Your task to perform on an android device: check google app version Image 0: 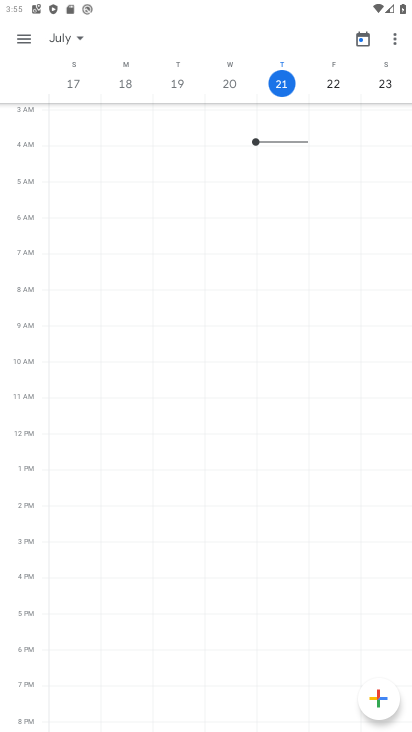
Step 0: press home button
Your task to perform on an android device: check google app version Image 1: 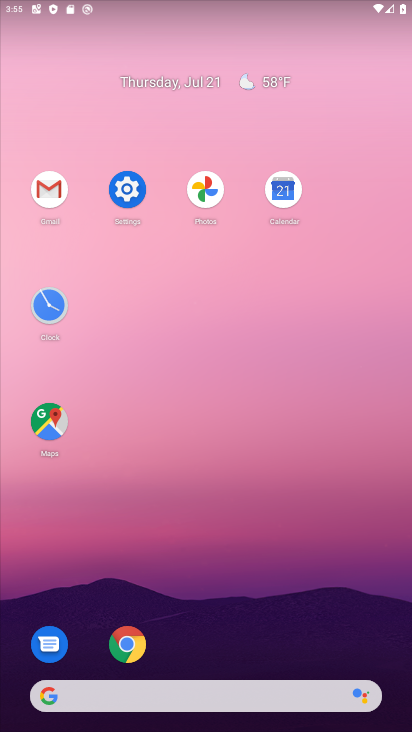
Step 1: drag from (260, 609) to (248, 224)
Your task to perform on an android device: check google app version Image 2: 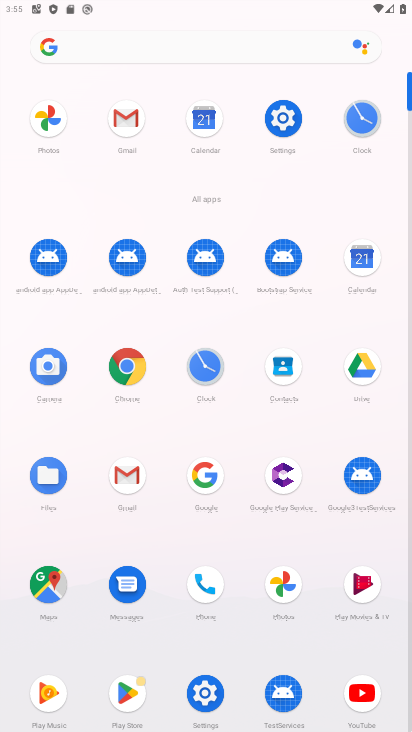
Step 2: drag from (208, 482) to (150, 311)
Your task to perform on an android device: check google app version Image 3: 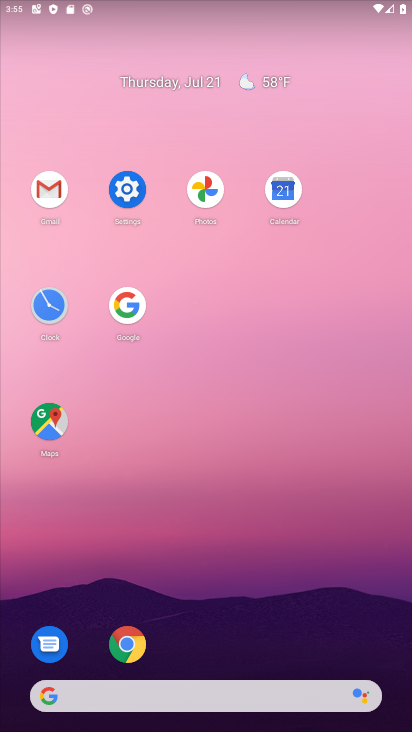
Step 3: click (138, 296)
Your task to perform on an android device: check google app version Image 4: 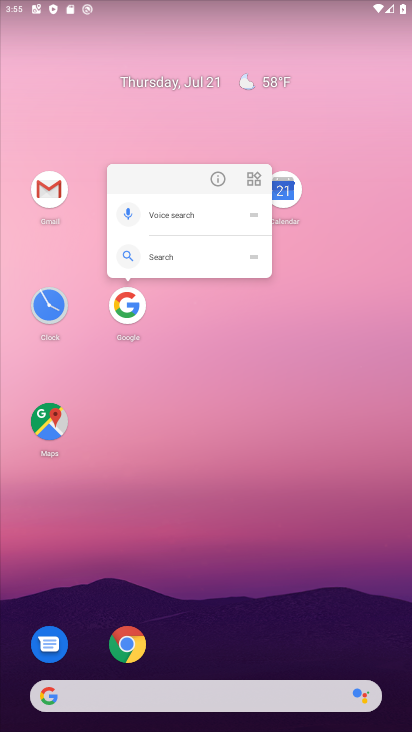
Step 4: click (215, 171)
Your task to perform on an android device: check google app version Image 5: 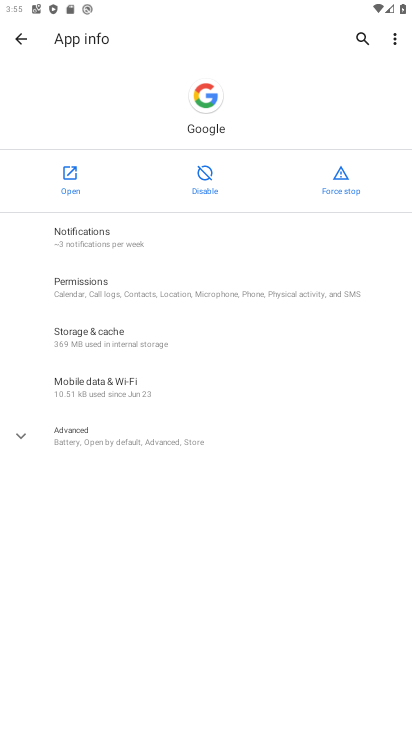
Step 5: click (212, 434)
Your task to perform on an android device: check google app version Image 6: 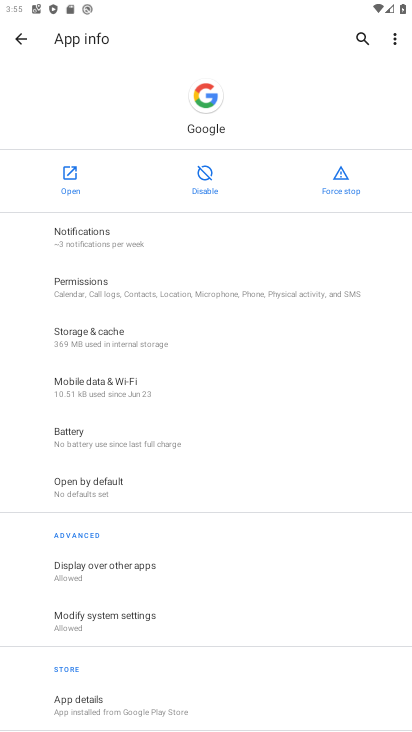
Step 6: task complete